Your task to perform on an android device: toggle notifications settings in the gmail app Image 0: 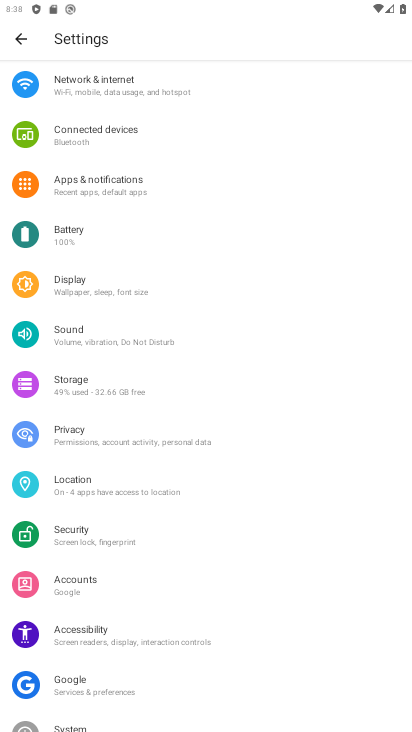
Step 0: press home button
Your task to perform on an android device: toggle notifications settings in the gmail app Image 1: 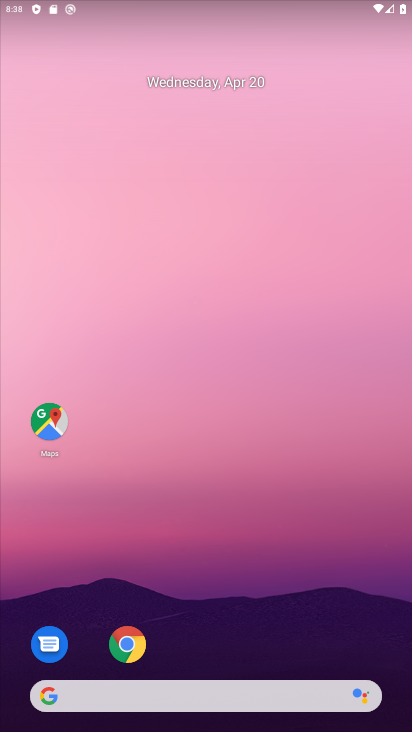
Step 1: drag from (217, 580) to (267, 234)
Your task to perform on an android device: toggle notifications settings in the gmail app Image 2: 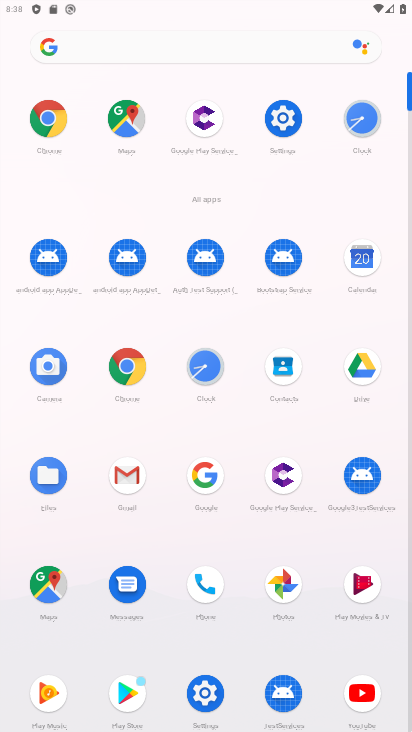
Step 2: click (121, 470)
Your task to perform on an android device: toggle notifications settings in the gmail app Image 3: 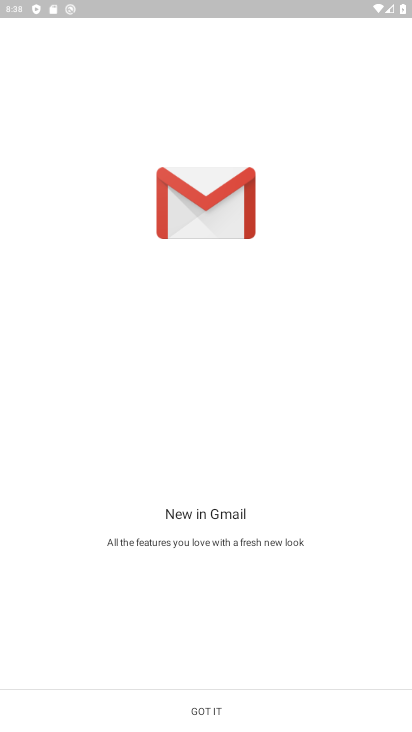
Step 3: click (219, 715)
Your task to perform on an android device: toggle notifications settings in the gmail app Image 4: 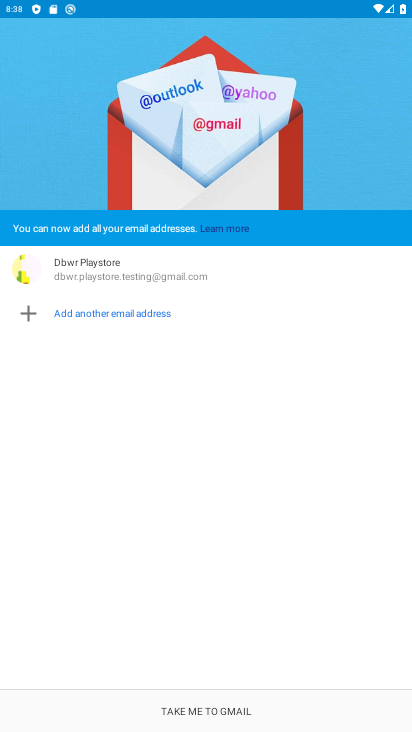
Step 4: click (219, 715)
Your task to perform on an android device: toggle notifications settings in the gmail app Image 5: 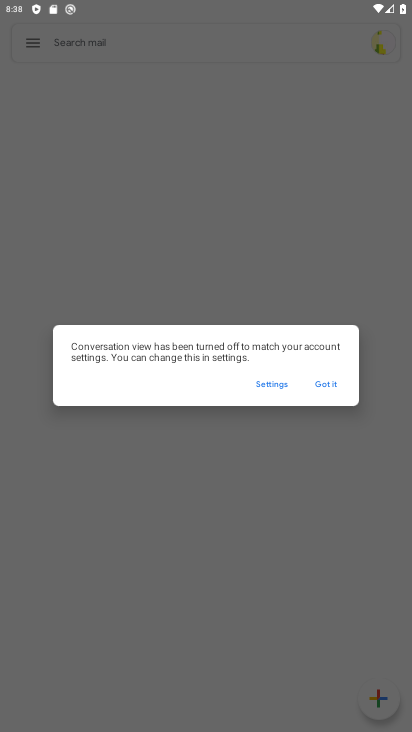
Step 5: click (338, 379)
Your task to perform on an android device: toggle notifications settings in the gmail app Image 6: 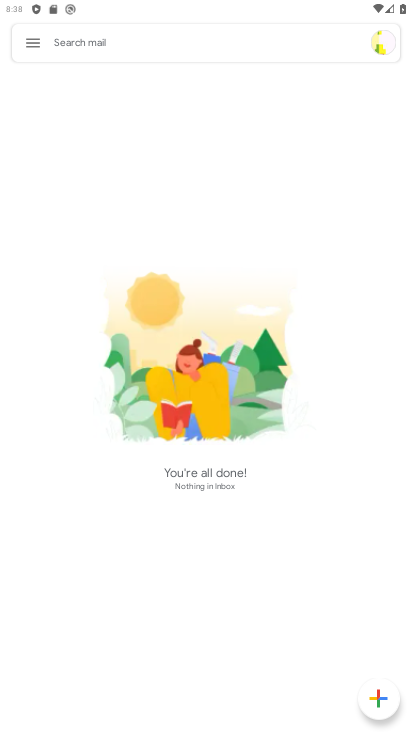
Step 6: click (42, 45)
Your task to perform on an android device: toggle notifications settings in the gmail app Image 7: 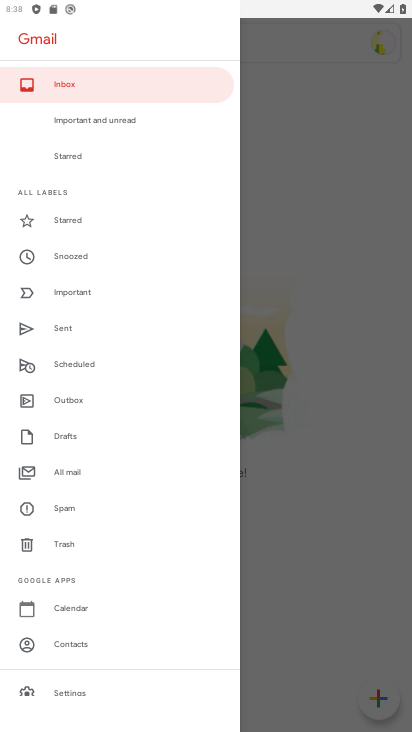
Step 7: click (70, 693)
Your task to perform on an android device: toggle notifications settings in the gmail app Image 8: 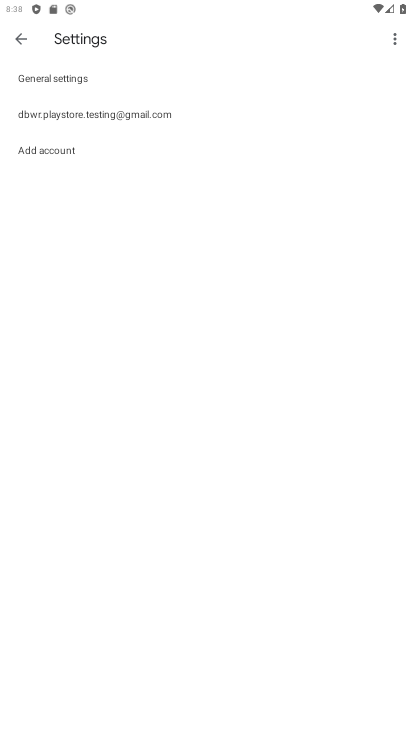
Step 8: click (39, 72)
Your task to perform on an android device: toggle notifications settings in the gmail app Image 9: 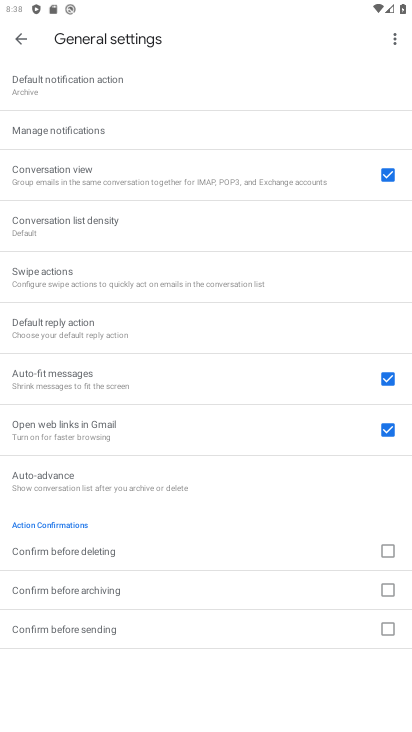
Step 9: click (71, 131)
Your task to perform on an android device: toggle notifications settings in the gmail app Image 10: 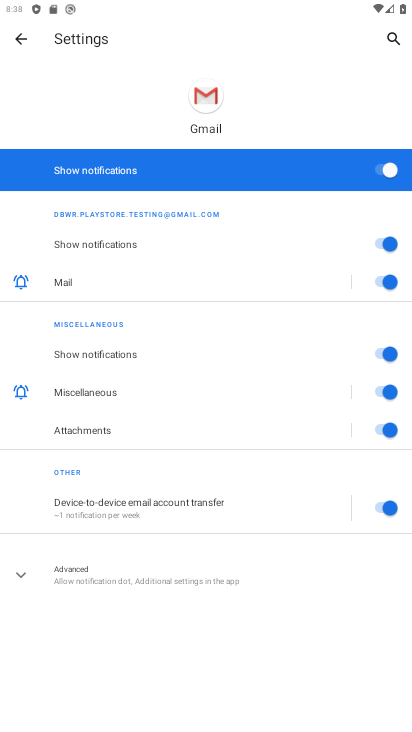
Step 10: click (379, 168)
Your task to perform on an android device: toggle notifications settings in the gmail app Image 11: 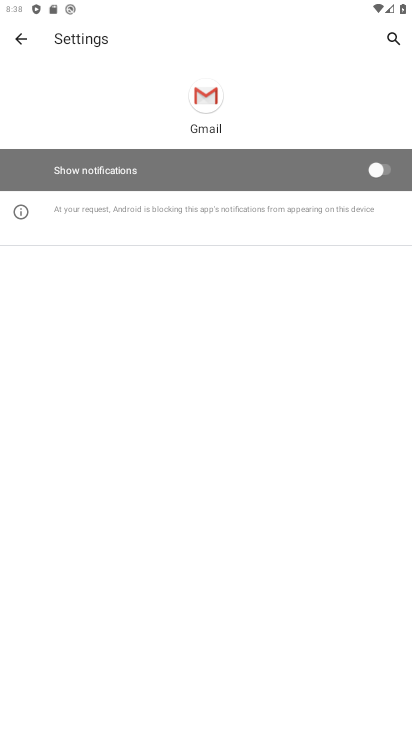
Step 11: task complete